Your task to perform on an android device: open app "Adobe Acrobat Reader: Edit PDF" (install if not already installed) Image 0: 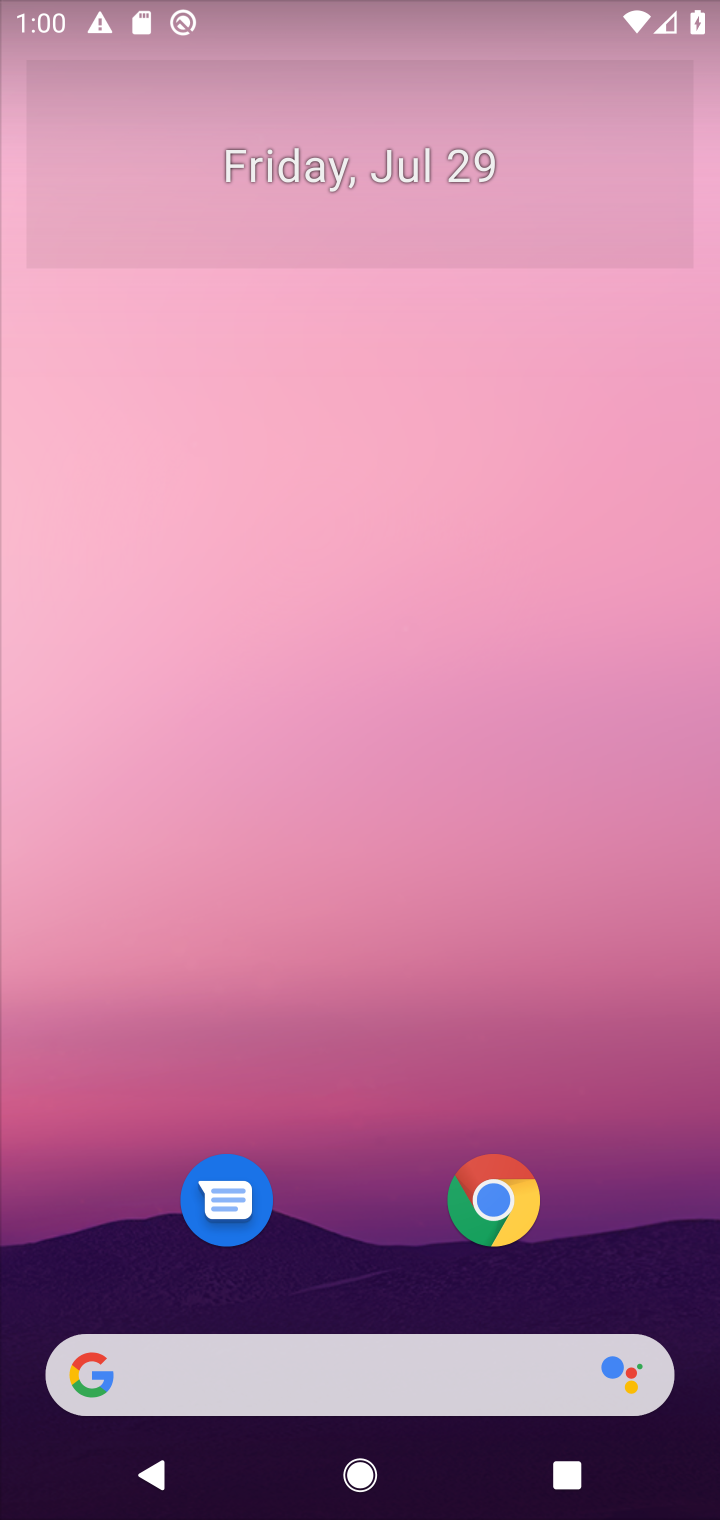
Step 0: drag from (617, 1091) to (574, 6)
Your task to perform on an android device: open app "Adobe Acrobat Reader: Edit PDF" (install if not already installed) Image 1: 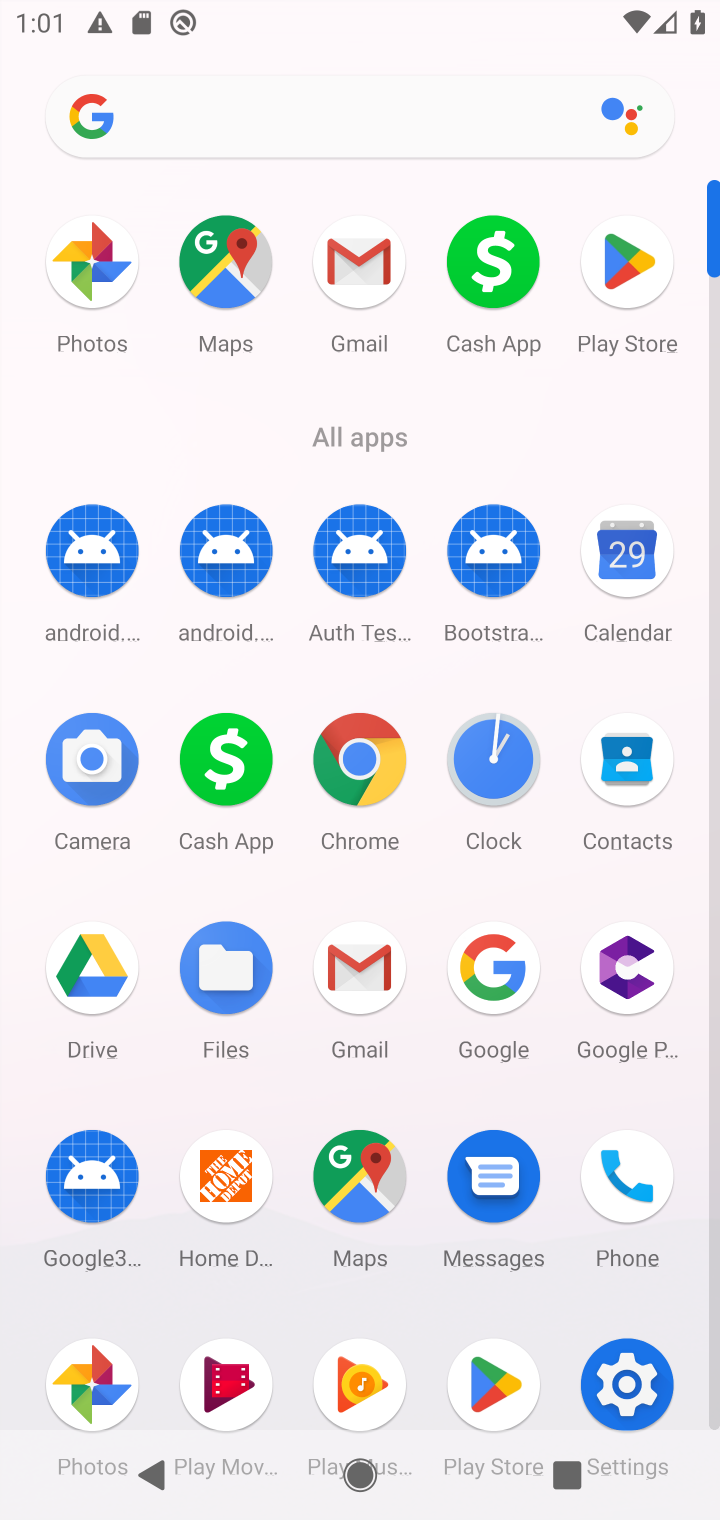
Step 1: click (616, 255)
Your task to perform on an android device: open app "Adobe Acrobat Reader: Edit PDF" (install if not already installed) Image 2: 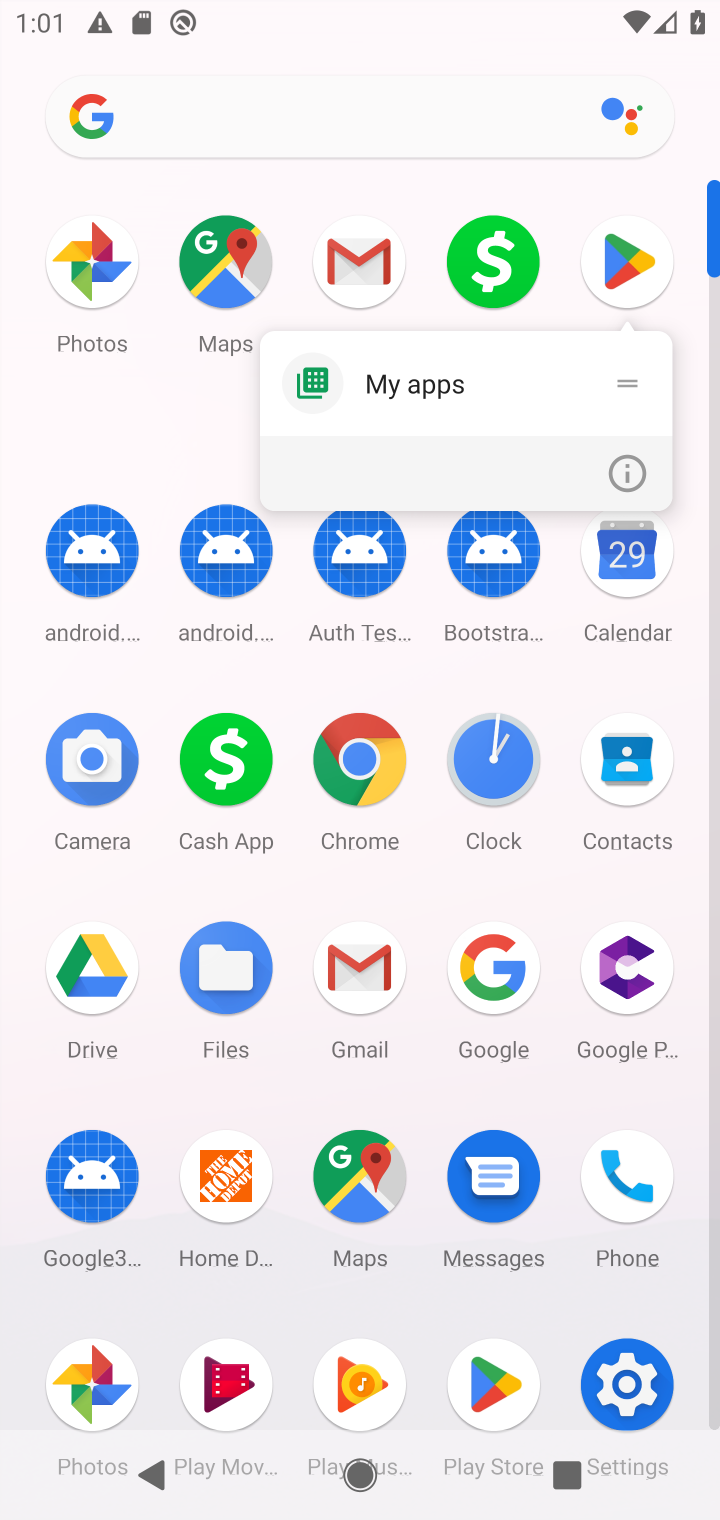
Step 2: click (616, 240)
Your task to perform on an android device: open app "Adobe Acrobat Reader: Edit PDF" (install if not already installed) Image 3: 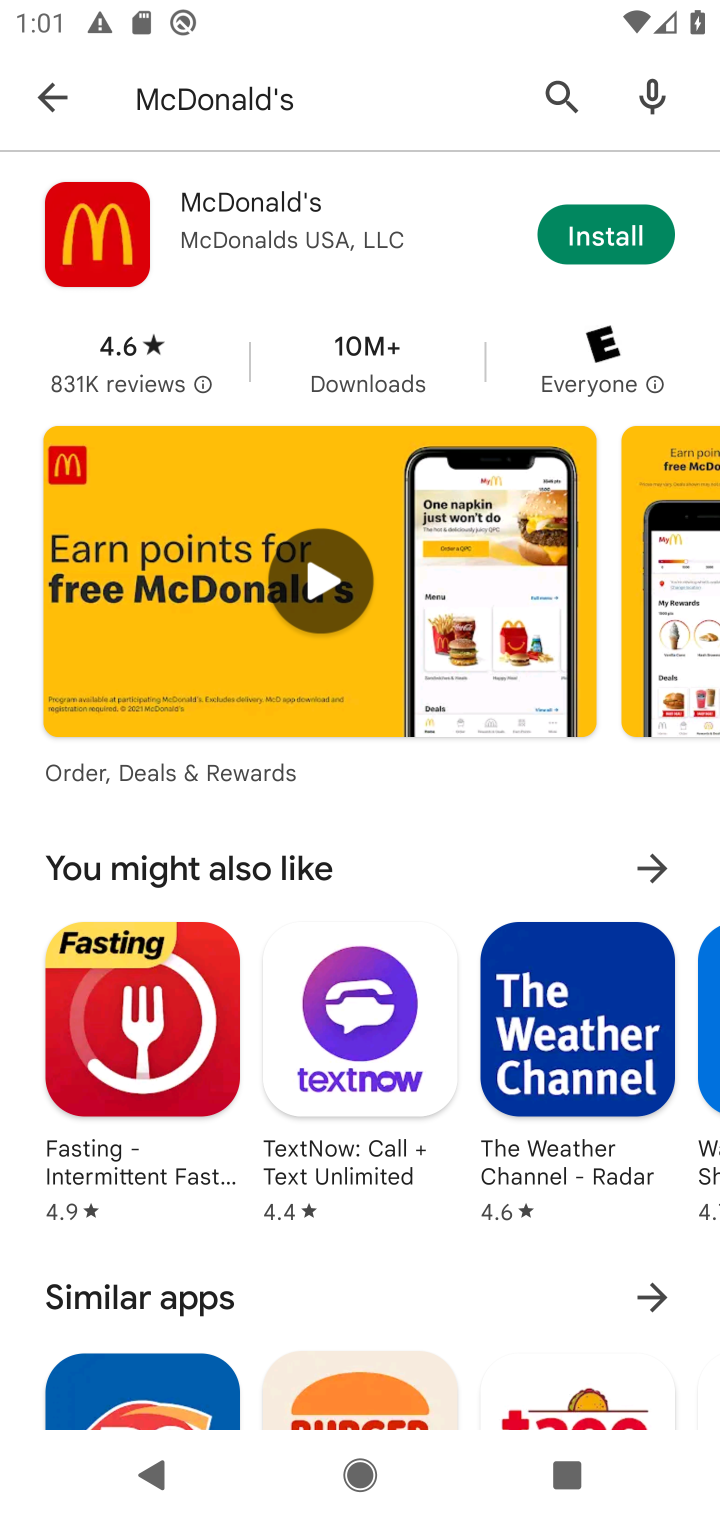
Step 3: click (421, 90)
Your task to perform on an android device: open app "Adobe Acrobat Reader: Edit PDF" (install if not already installed) Image 4: 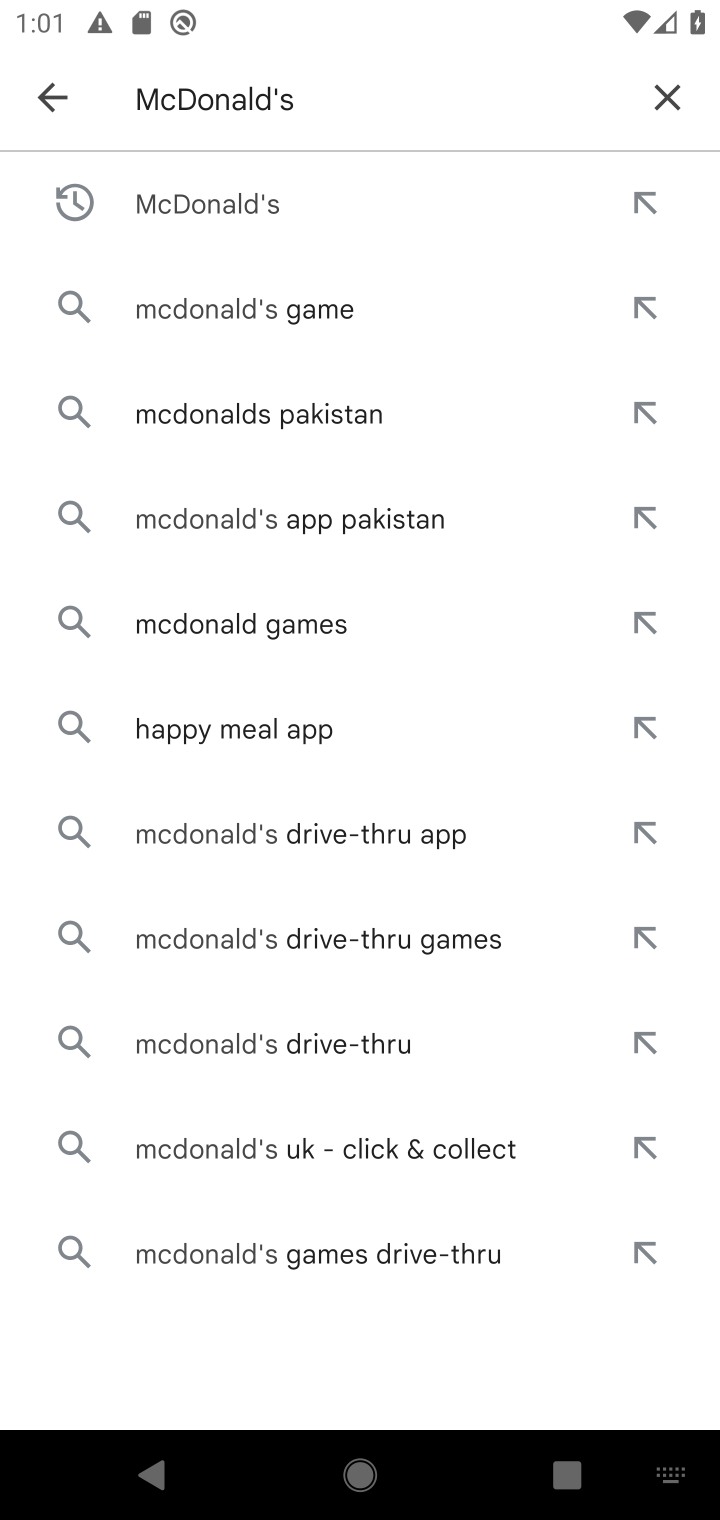
Step 4: click (659, 92)
Your task to perform on an android device: open app "Adobe Acrobat Reader: Edit PDF" (install if not already installed) Image 5: 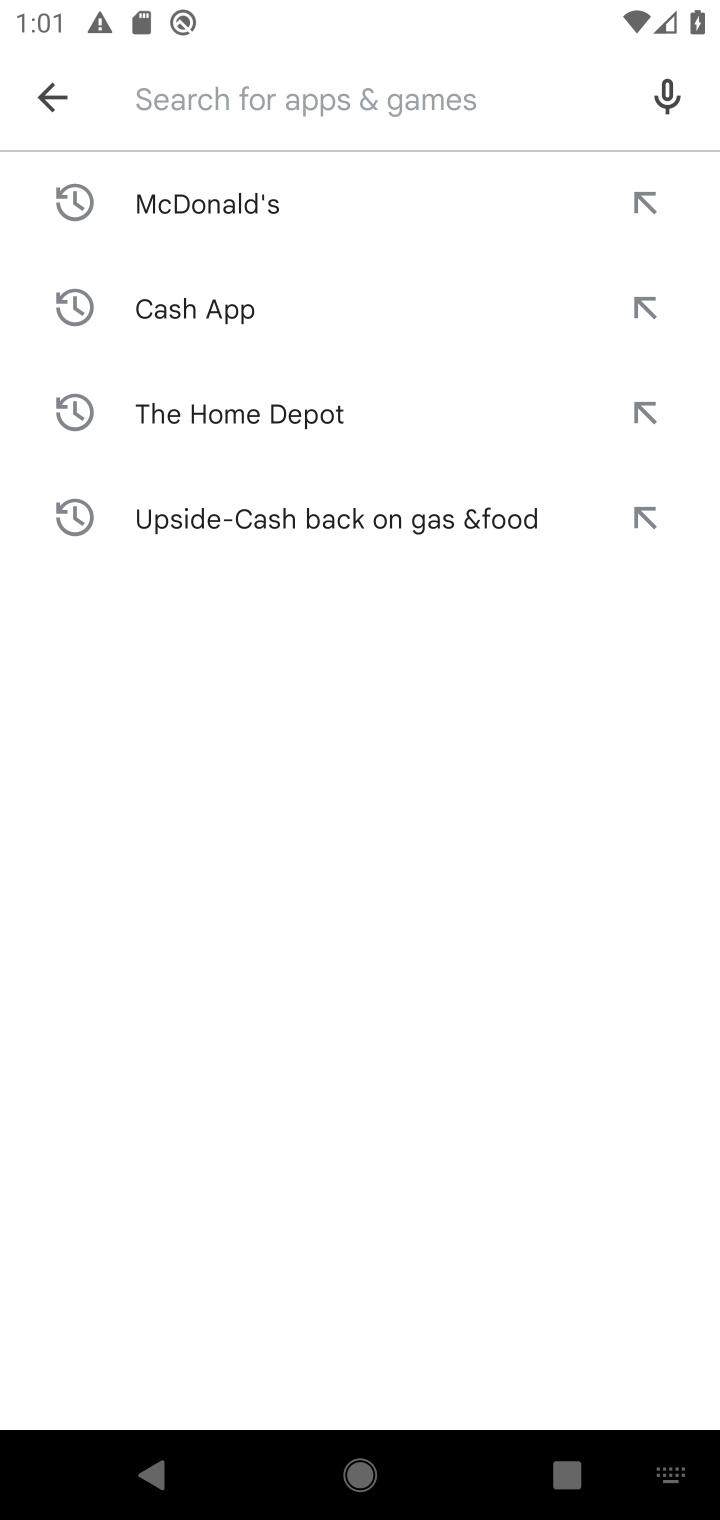
Step 5: type "Adobe Acrobat Reader: Edit PDf"
Your task to perform on an android device: open app "Adobe Acrobat Reader: Edit PDF" (install if not already installed) Image 6: 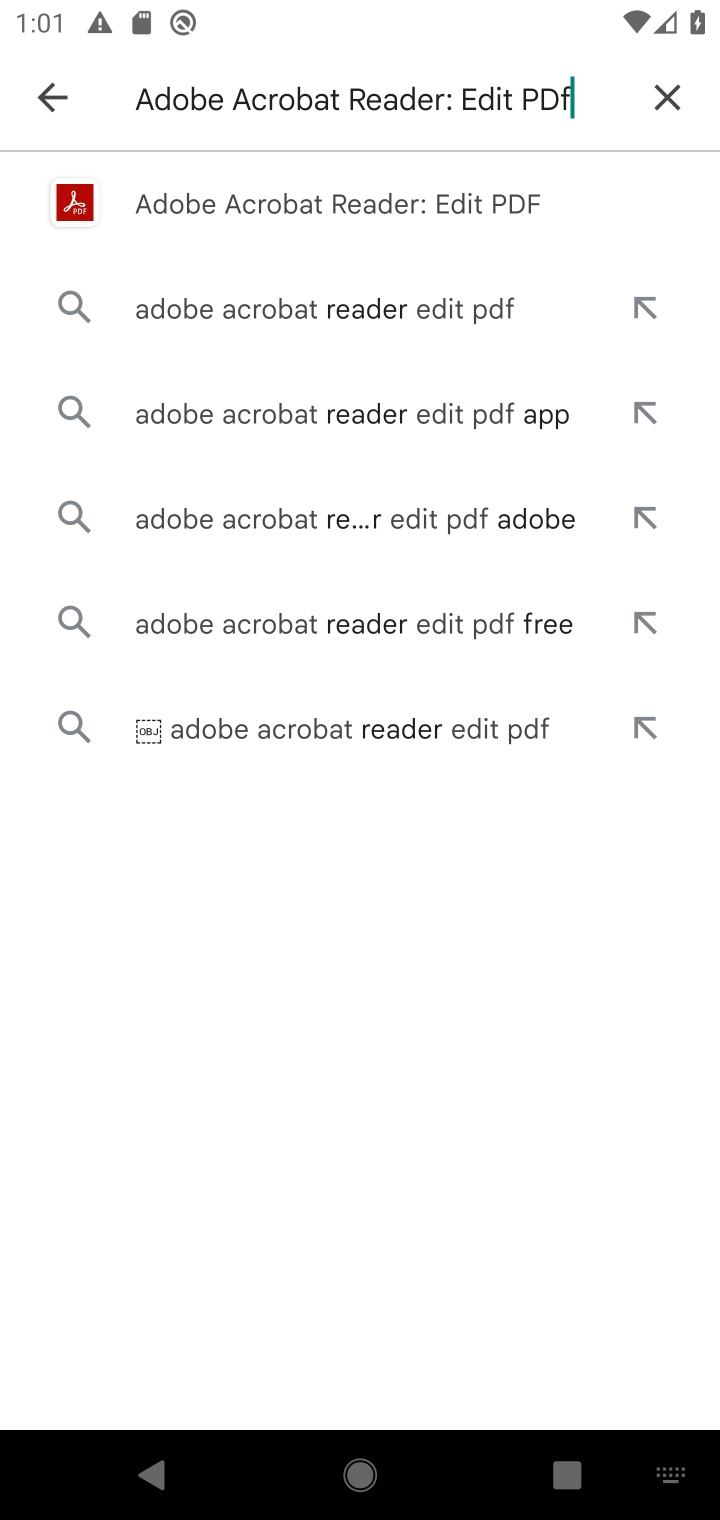
Step 6: click (273, 190)
Your task to perform on an android device: open app "Adobe Acrobat Reader: Edit PDF" (install if not already installed) Image 7: 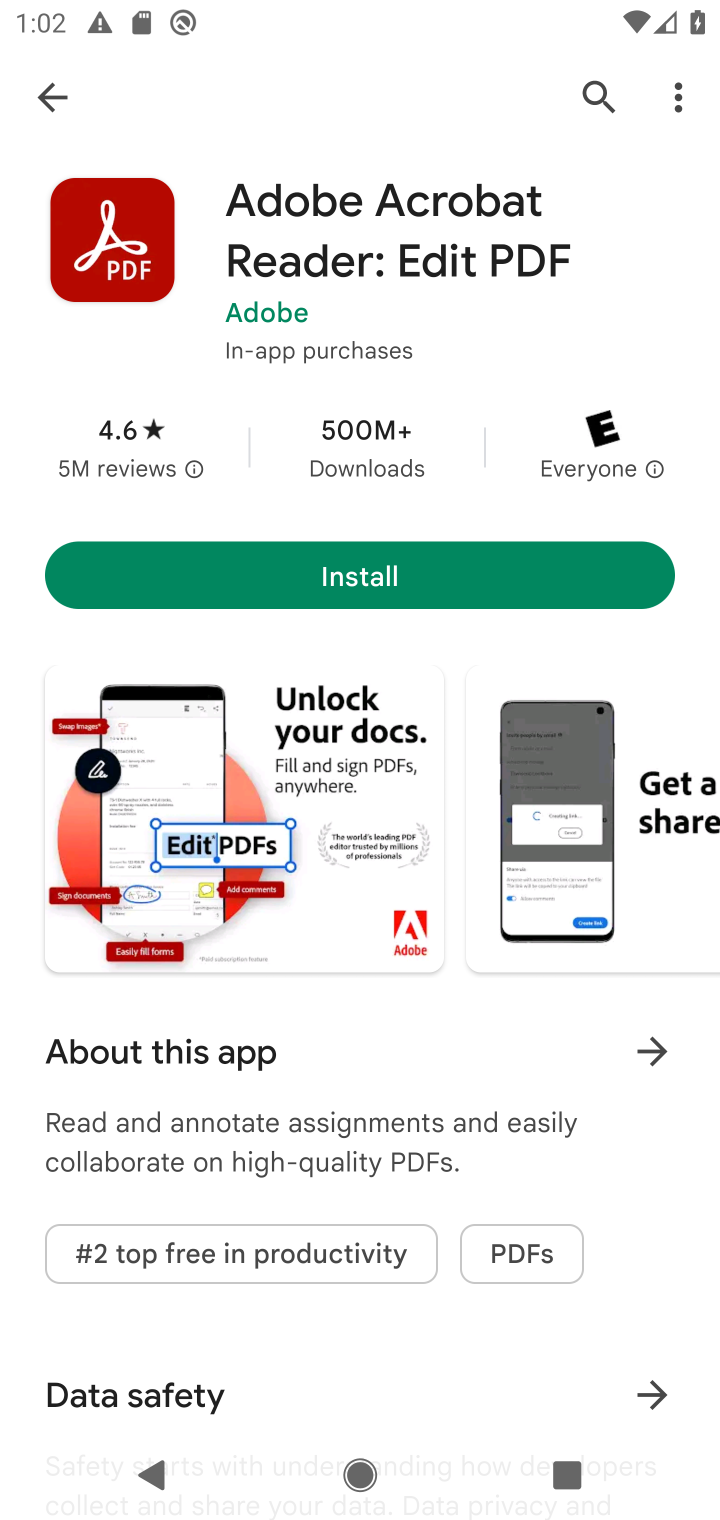
Step 7: click (610, 580)
Your task to perform on an android device: open app "Adobe Acrobat Reader: Edit PDF" (install if not already installed) Image 8: 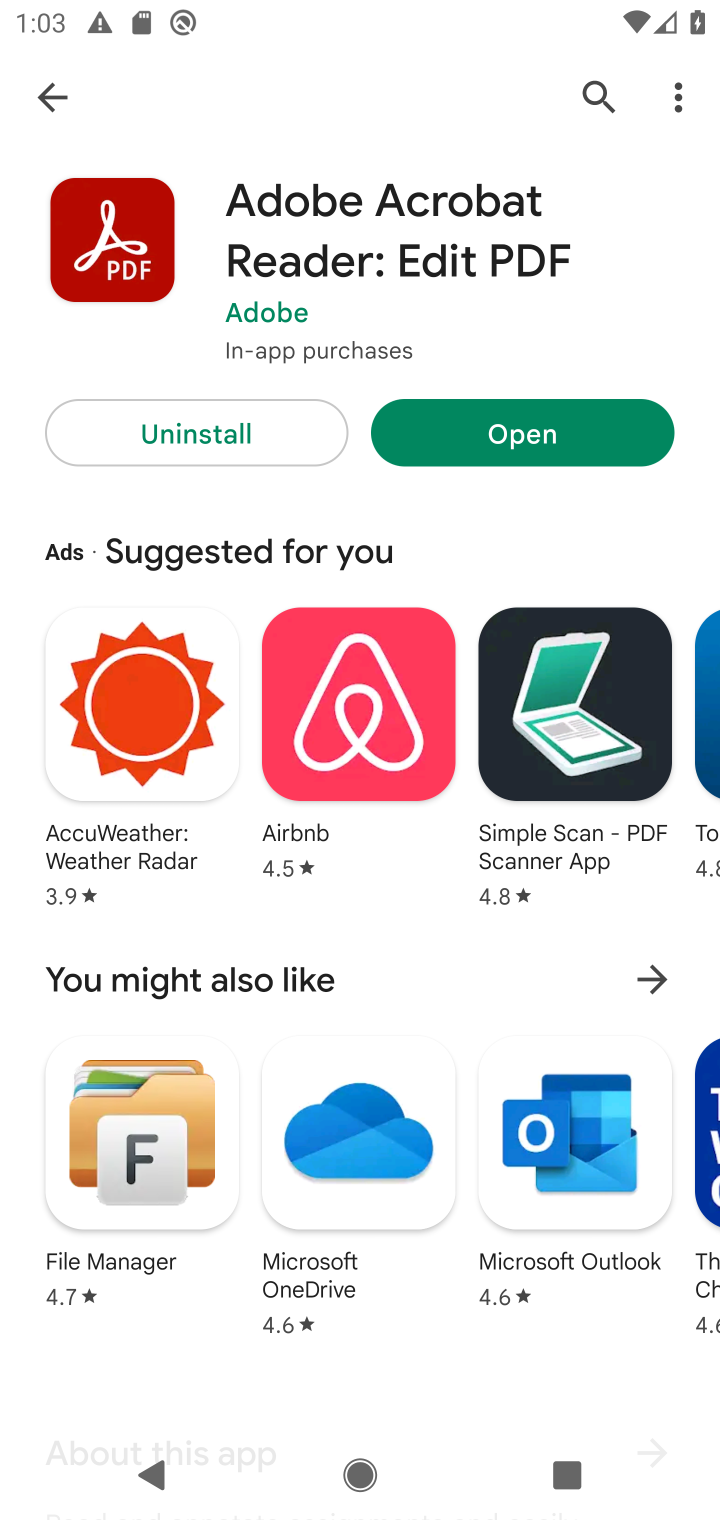
Step 8: click (572, 393)
Your task to perform on an android device: open app "Adobe Acrobat Reader: Edit PDF" (install if not already installed) Image 9: 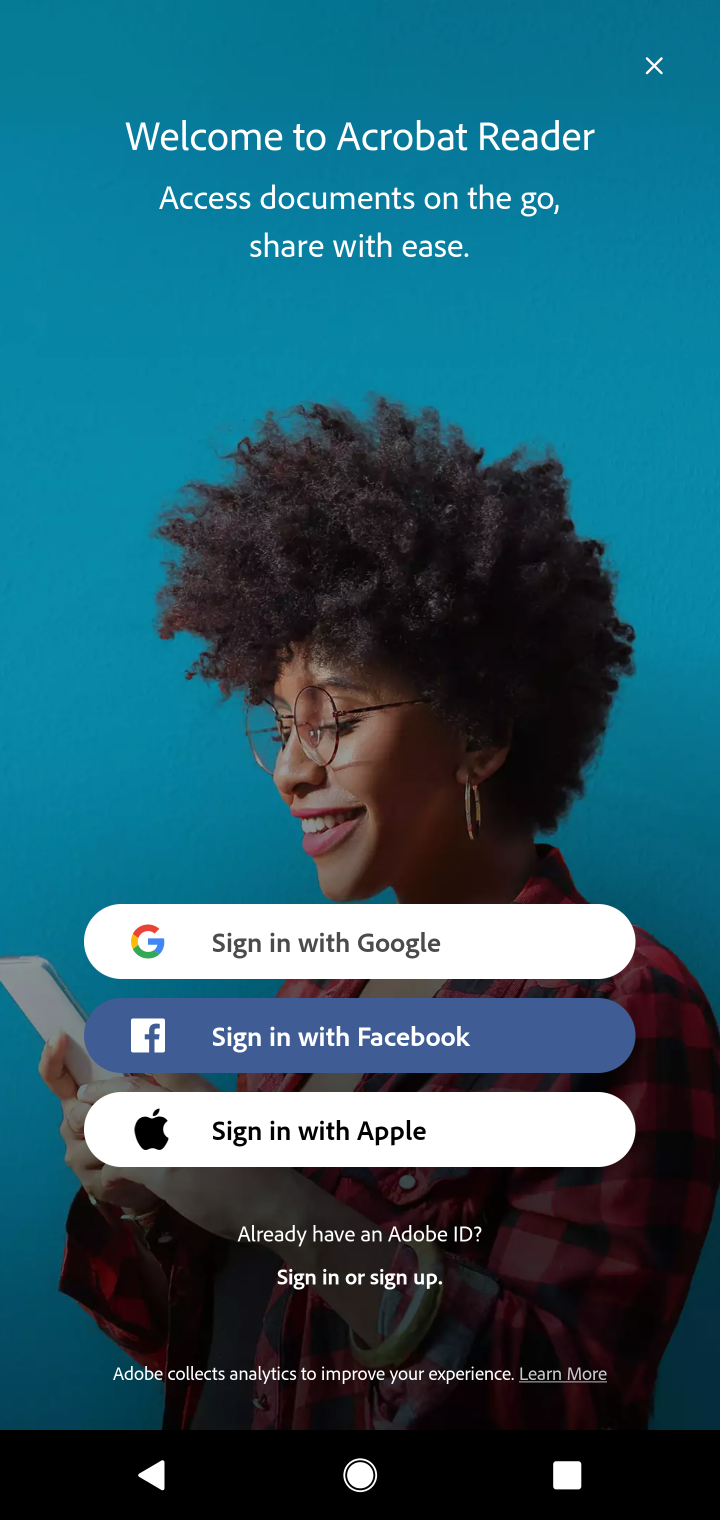
Step 9: task complete